Your task to perform on an android device: turn on bluetooth scan Image 0: 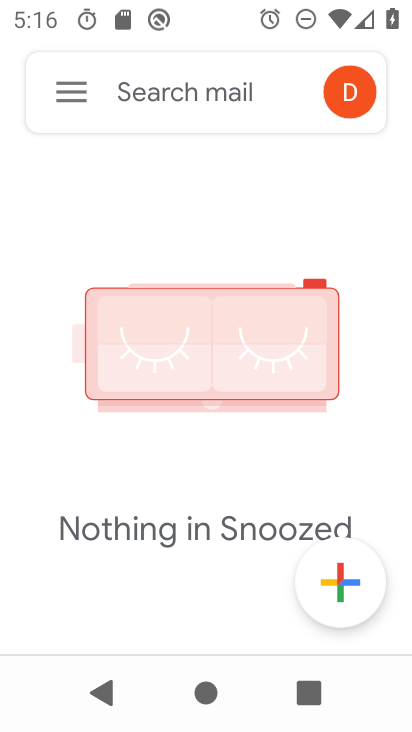
Step 0: press back button
Your task to perform on an android device: turn on bluetooth scan Image 1: 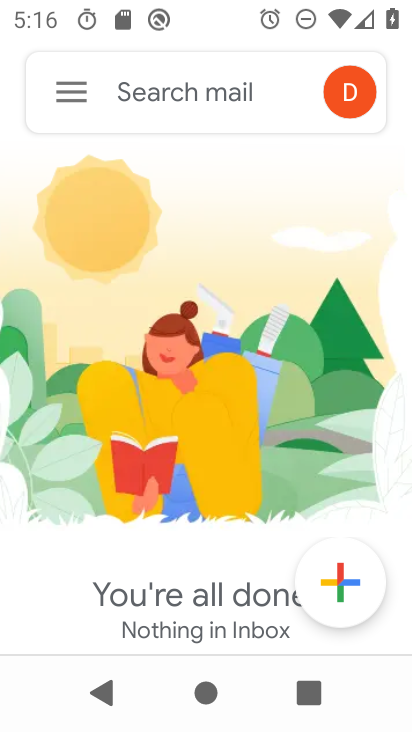
Step 1: press home button
Your task to perform on an android device: turn on bluetooth scan Image 2: 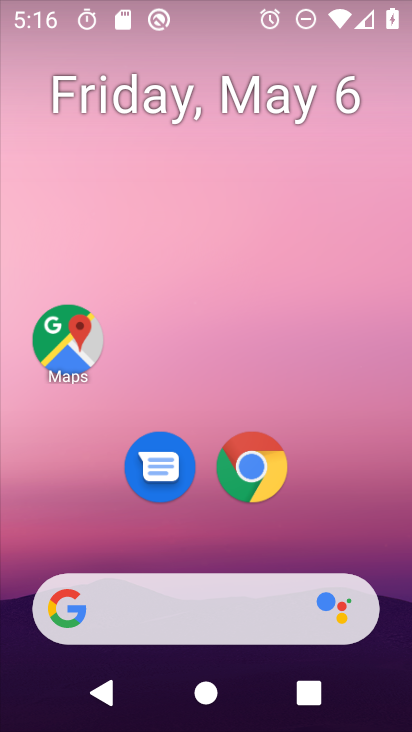
Step 2: drag from (302, 505) to (206, 75)
Your task to perform on an android device: turn on bluetooth scan Image 3: 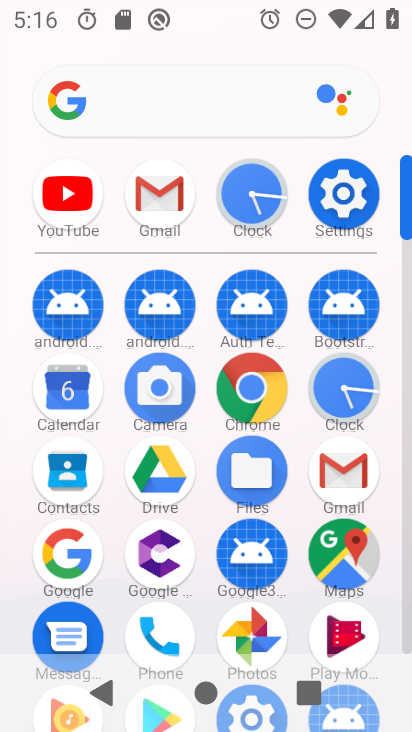
Step 3: click (327, 201)
Your task to perform on an android device: turn on bluetooth scan Image 4: 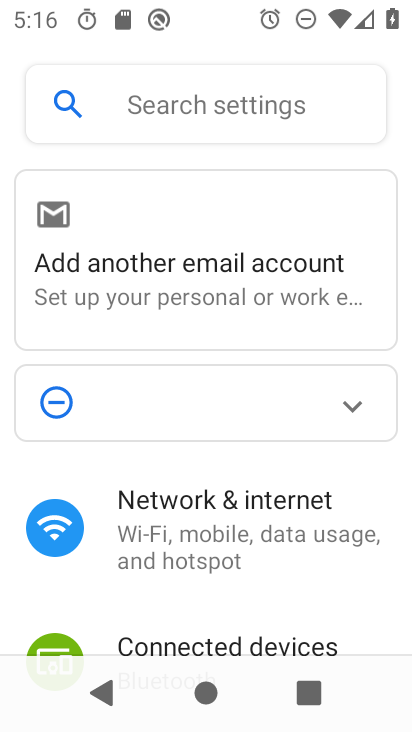
Step 4: drag from (210, 588) to (229, 230)
Your task to perform on an android device: turn on bluetooth scan Image 5: 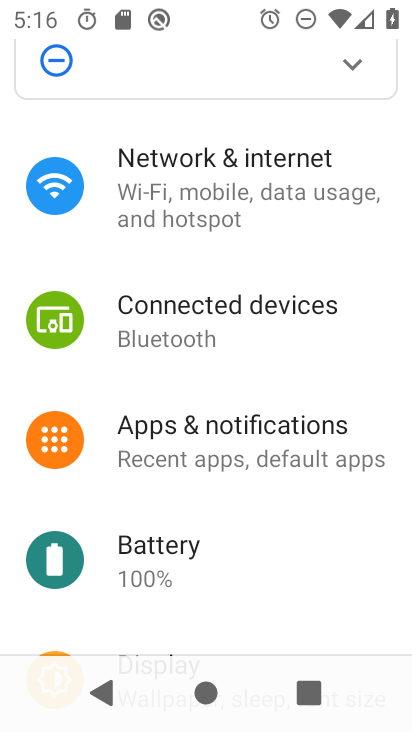
Step 5: drag from (226, 584) to (264, 232)
Your task to perform on an android device: turn on bluetooth scan Image 6: 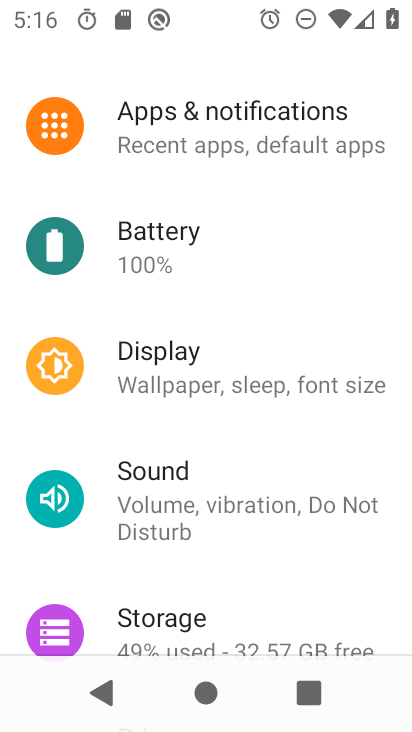
Step 6: drag from (223, 657) to (269, 364)
Your task to perform on an android device: turn on bluetooth scan Image 7: 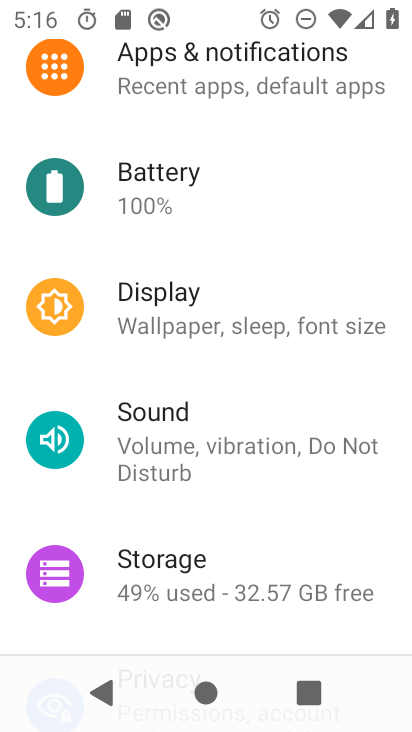
Step 7: drag from (215, 503) to (226, 278)
Your task to perform on an android device: turn on bluetooth scan Image 8: 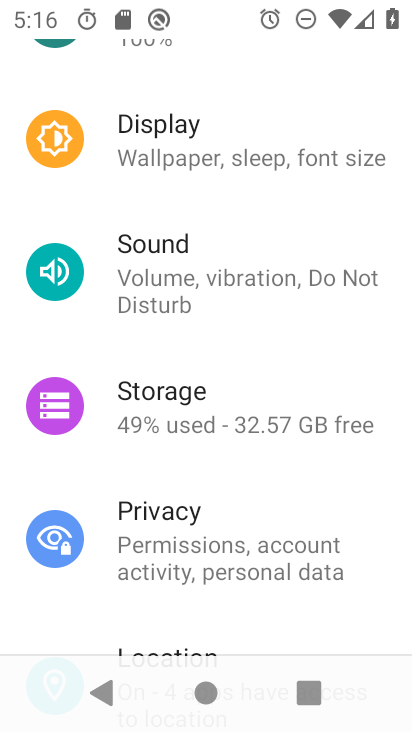
Step 8: drag from (176, 490) to (170, 210)
Your task to perform on an android device: turn on bluetooth scan Image 9: 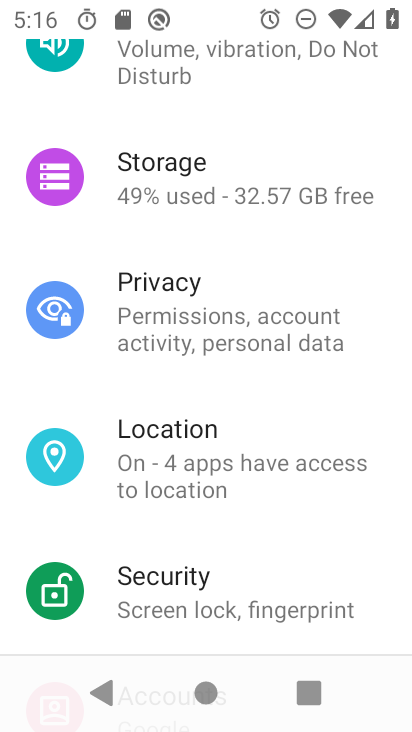
Step 9: click (179, 454)
Your task to perform on an android device: turn on bluetooth scan Image 10: 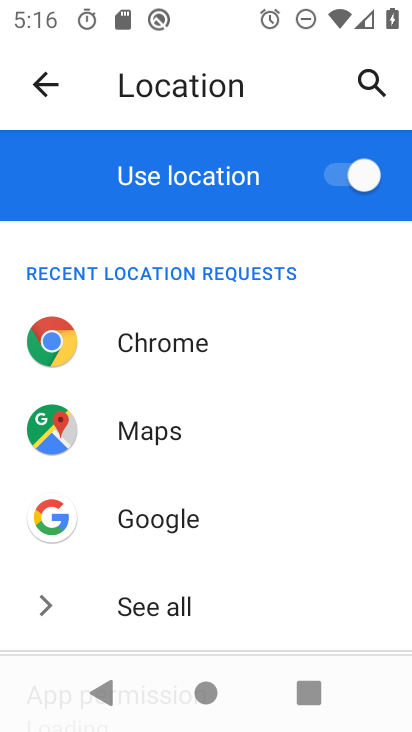
Step 10: drag from (158, 574) to (195, 162)
Your task to perform on an android device: turn on bluetooth scan Image 11: 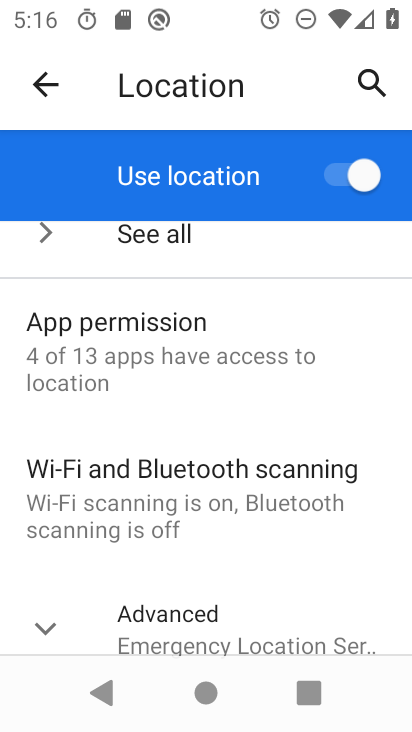
Step 11: click (126, 488)
Your task to perform on an android device: turn on bluetooth scan Image 12: 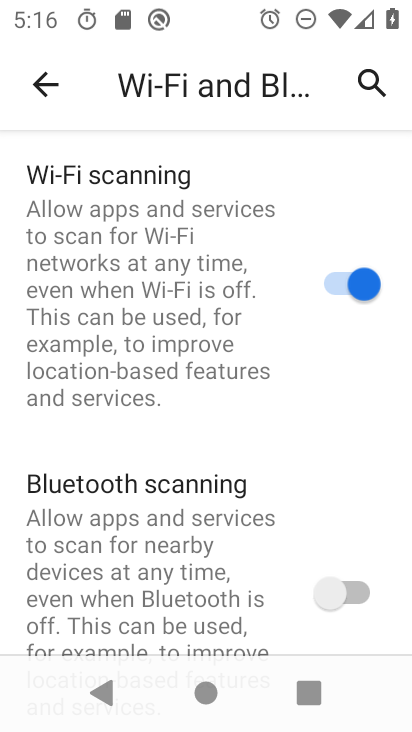
Step 12: click (361, 601)
Your task to perform on an android device: turn on bluetooth scan Image 13: 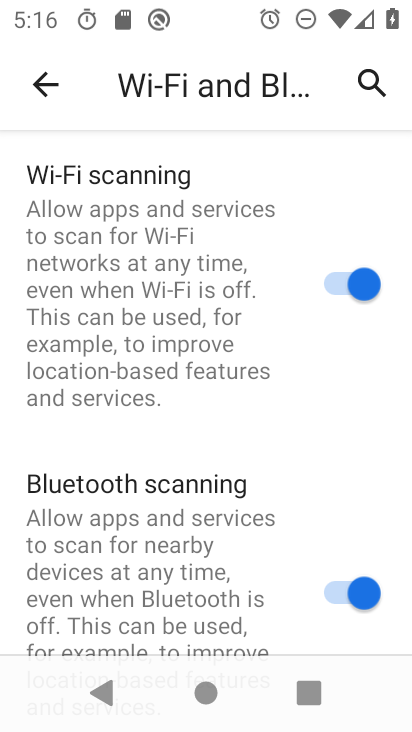
Step 13: task complete